Your task to perform on an android device: What's the weather? Image 0: 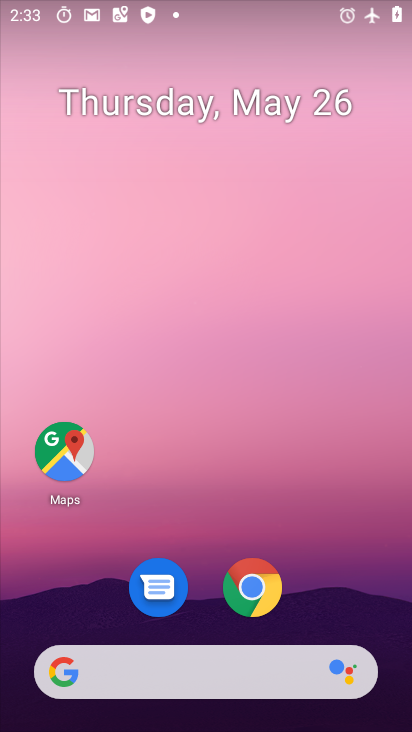
Step 0: drag from (300, 713) to (321, 142)
Your task to perform on an android device: What's the weather? Image 1: 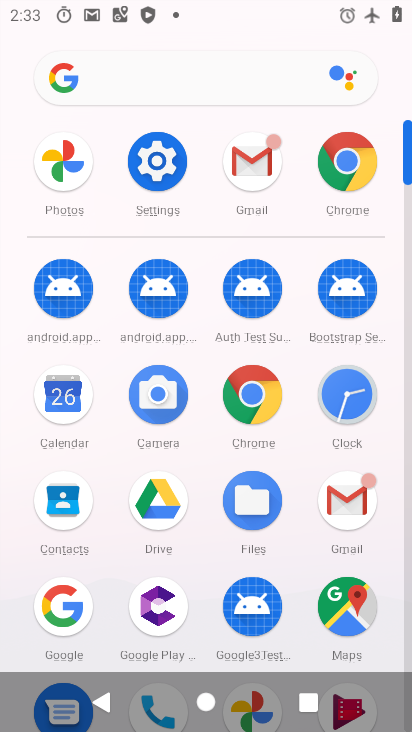
Step 1: click (198, 96)
Your task to perform on an android device: What's the weather? Image 2: 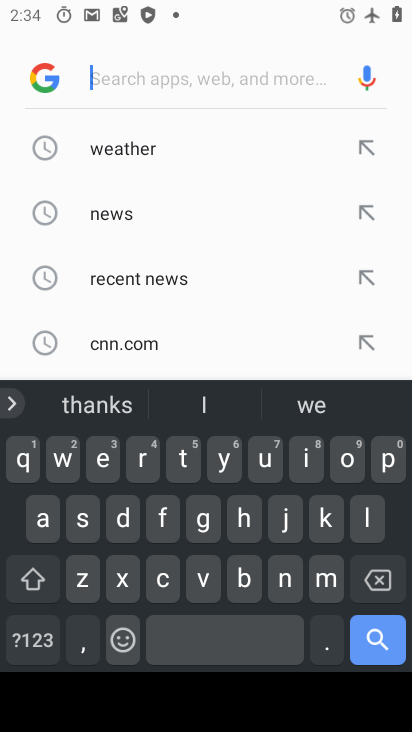
Step 2: click (157, 161)
Your task to perform on an android device: What's the weather? Image 3: 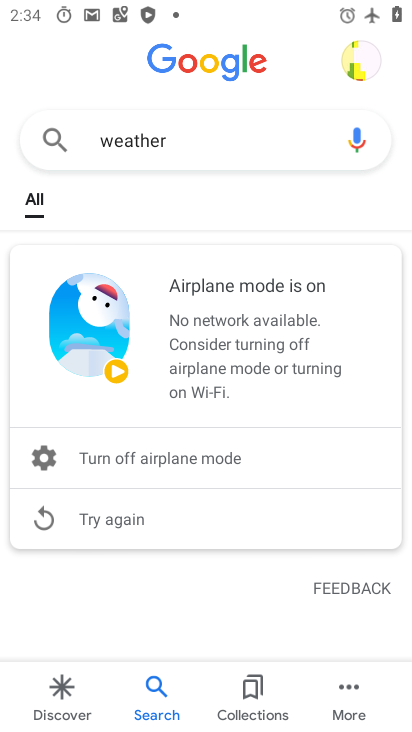
Step 3: press home button
Your task to perform on an android device: What's the weather? Image 4: 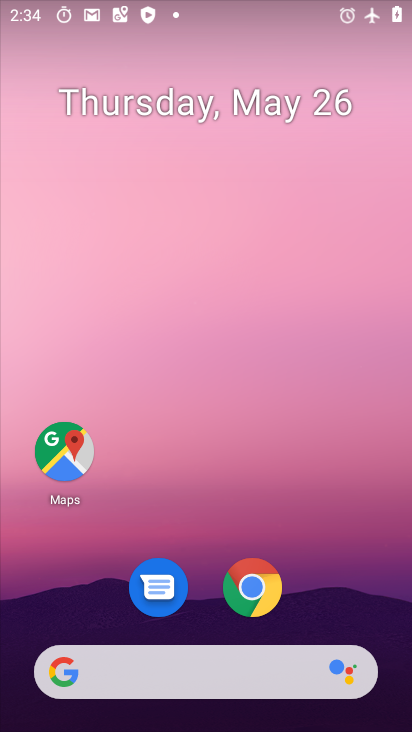
Step 4: drag from (296, 707) to (256, 145)
Your task to perform on an android device: What's the weather? Image 5: 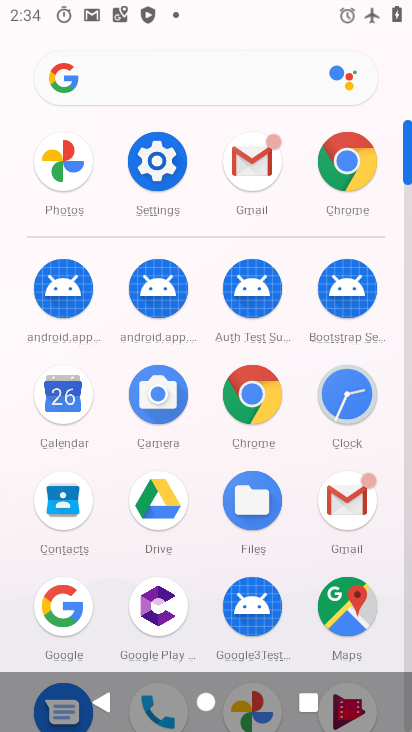
Step 5: click (164, 167)
Your task to perform on an android device: What's the weather? Image 6: 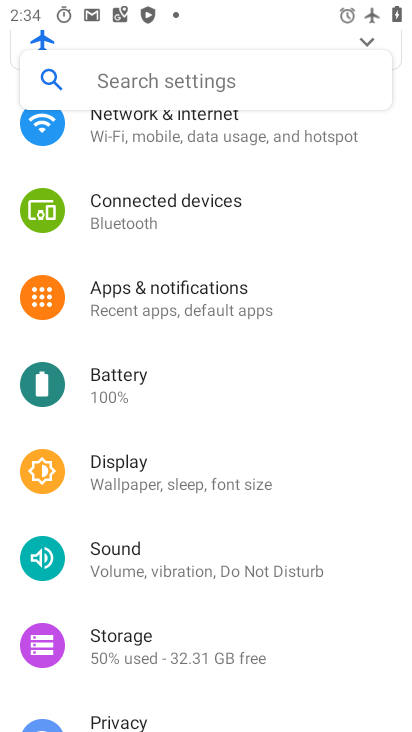
Step 6: click (213, 128)
Your task to perform on an android device: What's the weather? Image 7: 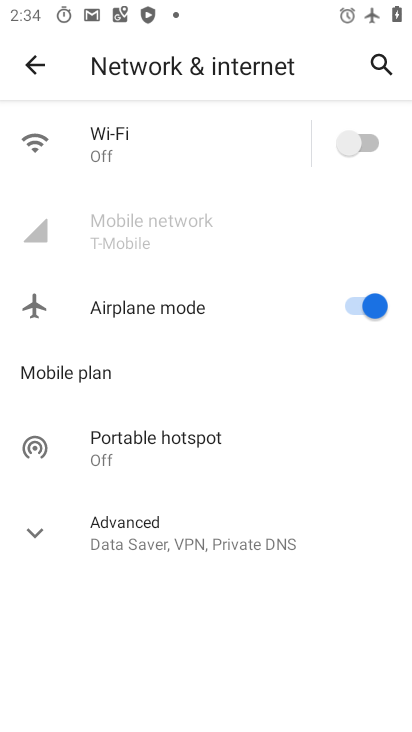
Step 7: click (354, 314)
Your task to perform on an android device: What's the weather? Image 8: 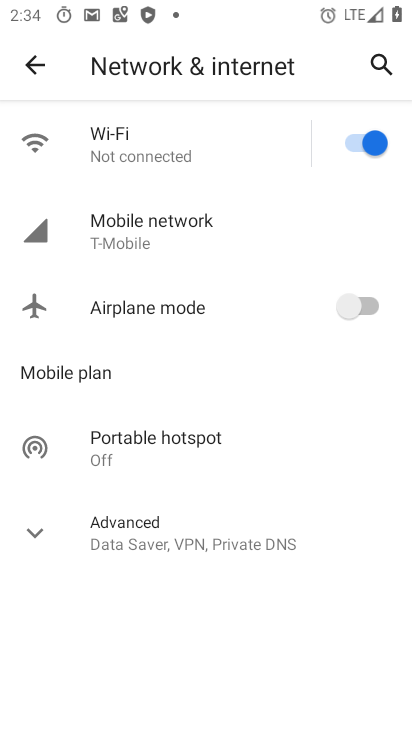
Step 8: press home button
Your task to perform on an android device: What's the weather? Image 9: 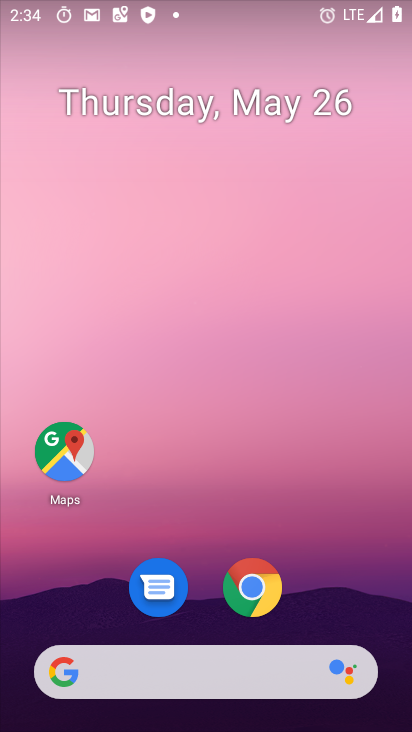
Step 9: drag from (247, 716) to (206, 193)
Your task to perform on an android device: What's the weather? Image 10: 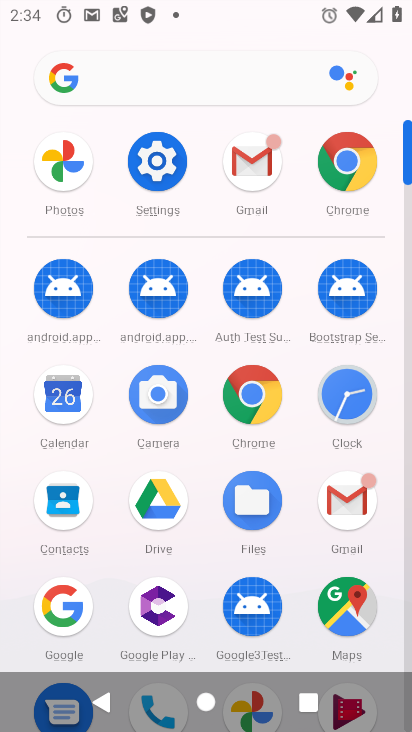
Step 10: click (178, 90)
Your task to perform on an android device: What's the weather? Image 11: 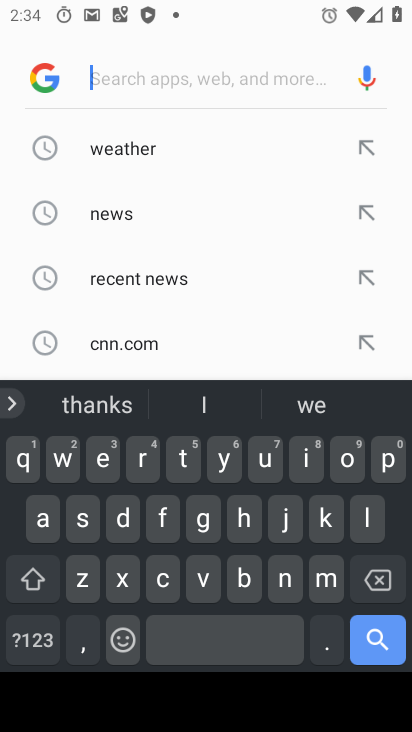
Step 11: click (140, 150)
Your task to perform on an android device: What's the weather? Image 12: 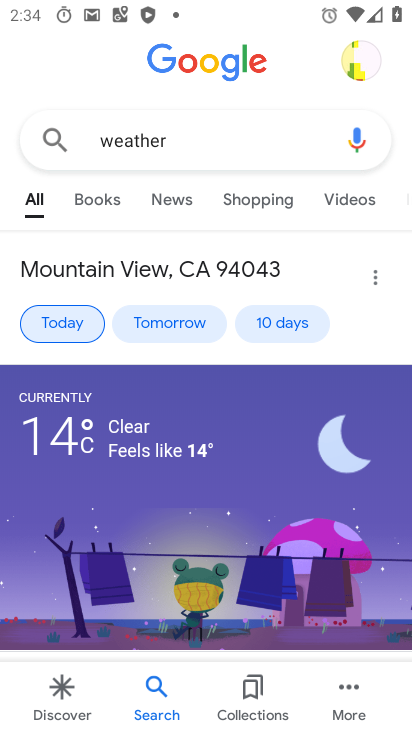
Step 12: task complete